Your task to perform on an android device: refresh tabs in the chrome app Image 0: 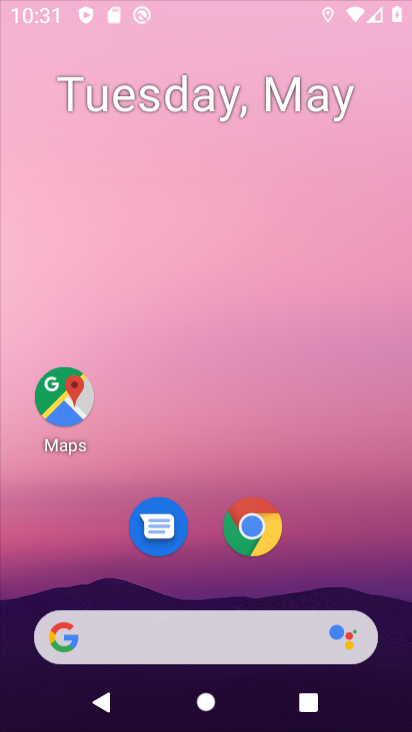
Step 0: click (266, 83)
Your task to perform on an android device: refresh tabs in the chrome app Image 1: 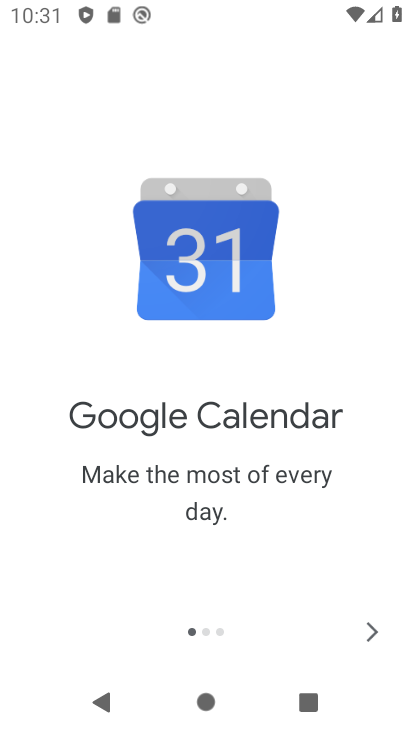
Step 1: click (380, 628)
Your task to perform on an android device: refresh tabs in the chrome app Image 2: 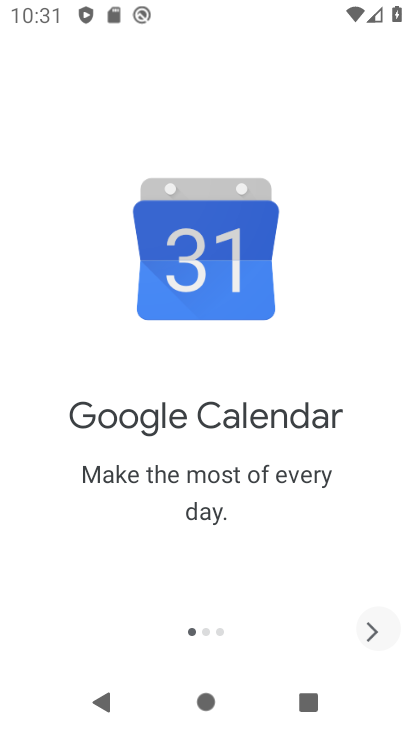
Step 2: click (379, 626)
Your task to perform on an android device: refresh tabs in the chrome app Image 3: 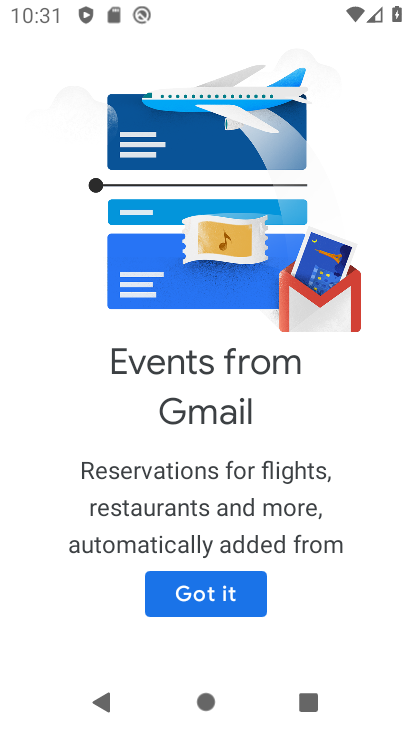
Step 3: click (209, 610)
Your task to perform on an android device: refresh tabs in the chrome app Image 4: 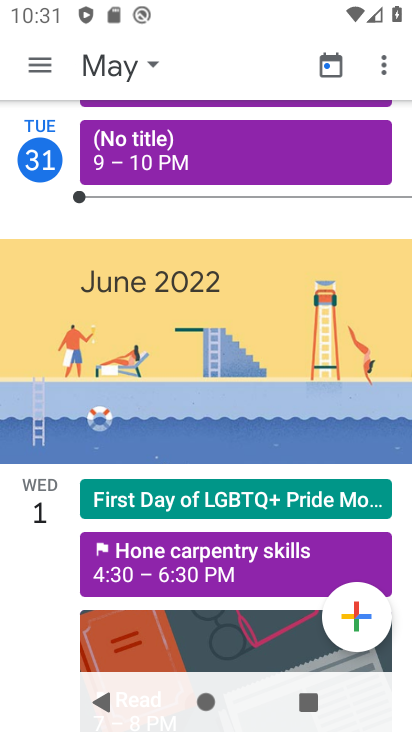
Step 4: press home button
Your task to perform on an android device: refresh tabs in the chrome app Image 5: 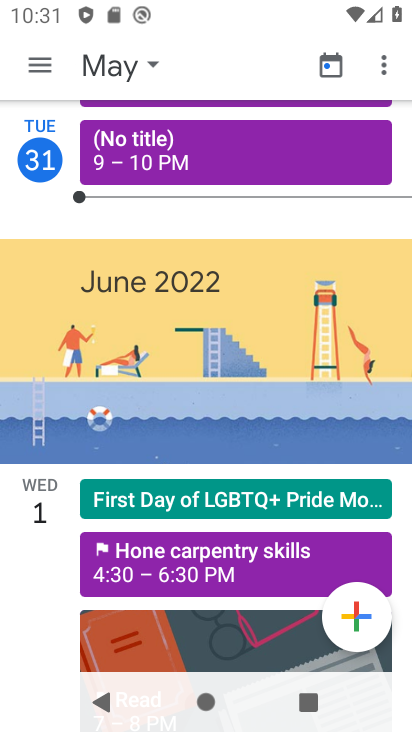
Step 5: drag from (162, 560) to (234, 158)
Your task to perform on an android device: refresh tabs in the chrome app Image 6: 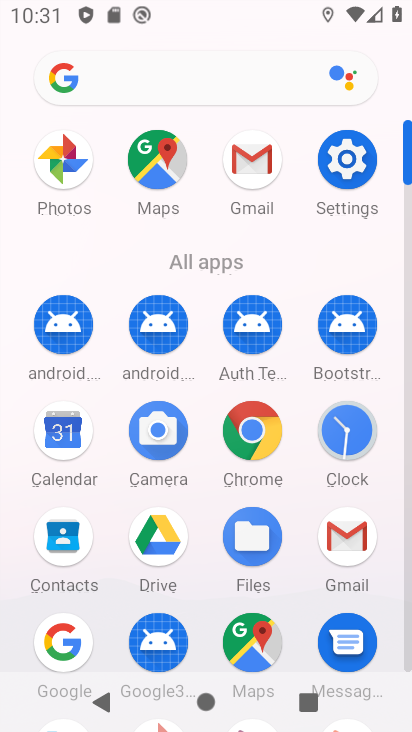
Step 6: click (251, 409)
Your task to perform on an android device: refresh tabs in the chrome app Image 7: 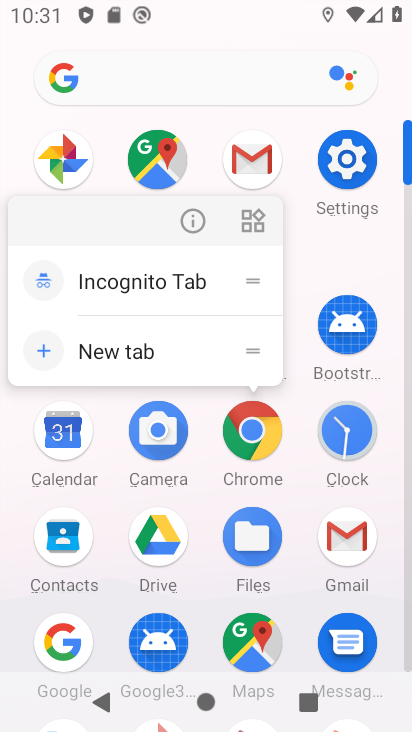
Step 7: click (185, 219)
Your task to perform on an android device: refresh tabs in the chrome app Image 8: 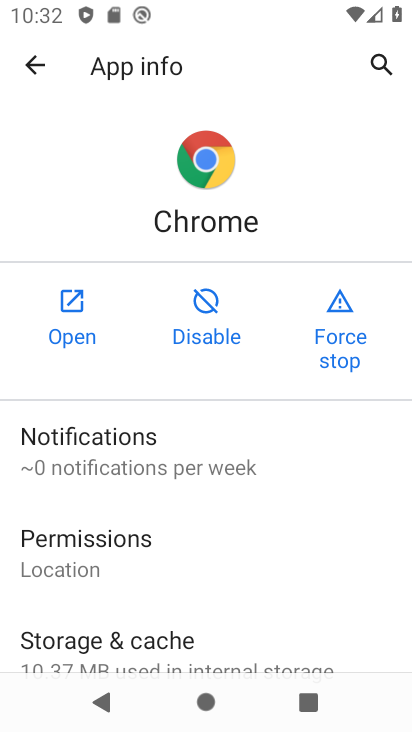
Step 8: click (68, 312)
Your task to perform on an android device: refresh tabs in the chrome app Image 9: 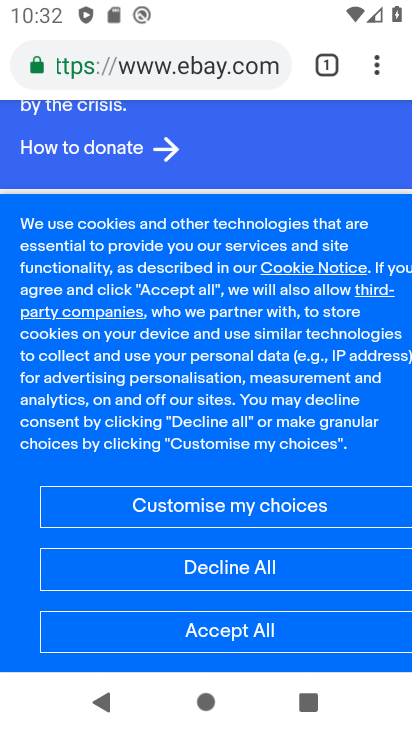
Step 9: drag from (240, 129) to (231, 642)
Your task to perform on an android device: refresh tabs in the chrome app Image 10: 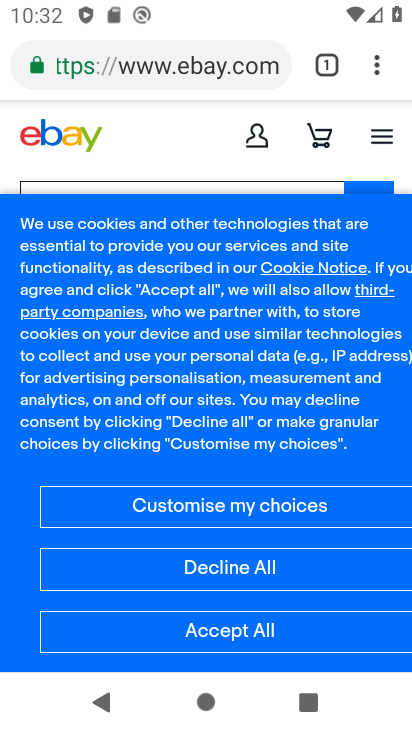
Step 10: click (384, 72)
Your task to perform on an android device: refresh tabs in the chrome app Image 11: 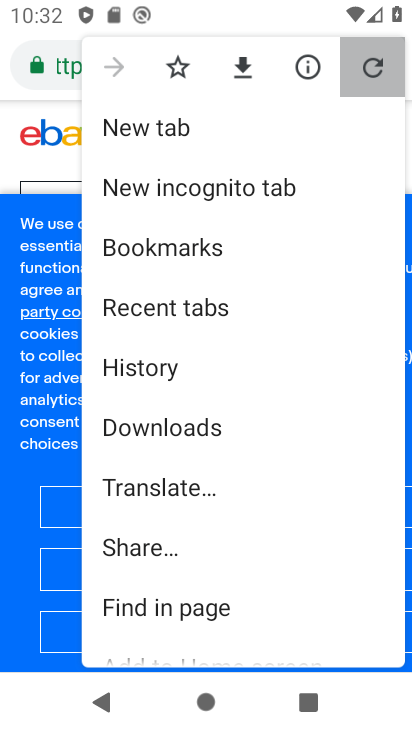
Step 11: click (377, 73)
Your task to perform on an android device: refresh tabs in the chrome app Image 12: 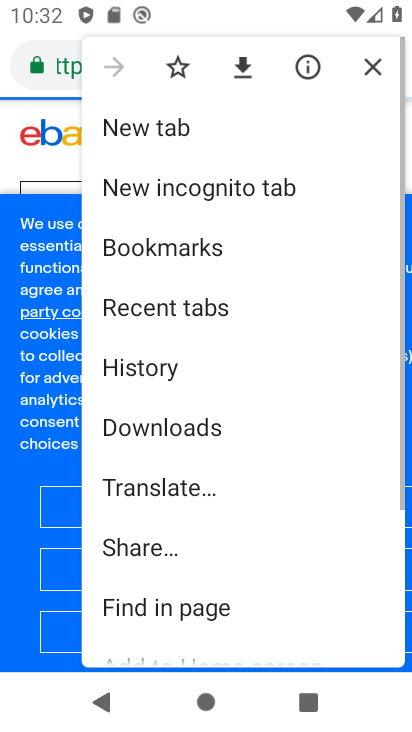
Step 12: task complete